Your task to perform on an android device: open app "DoorDash - Dasher" (install if not already installed) Image 0: 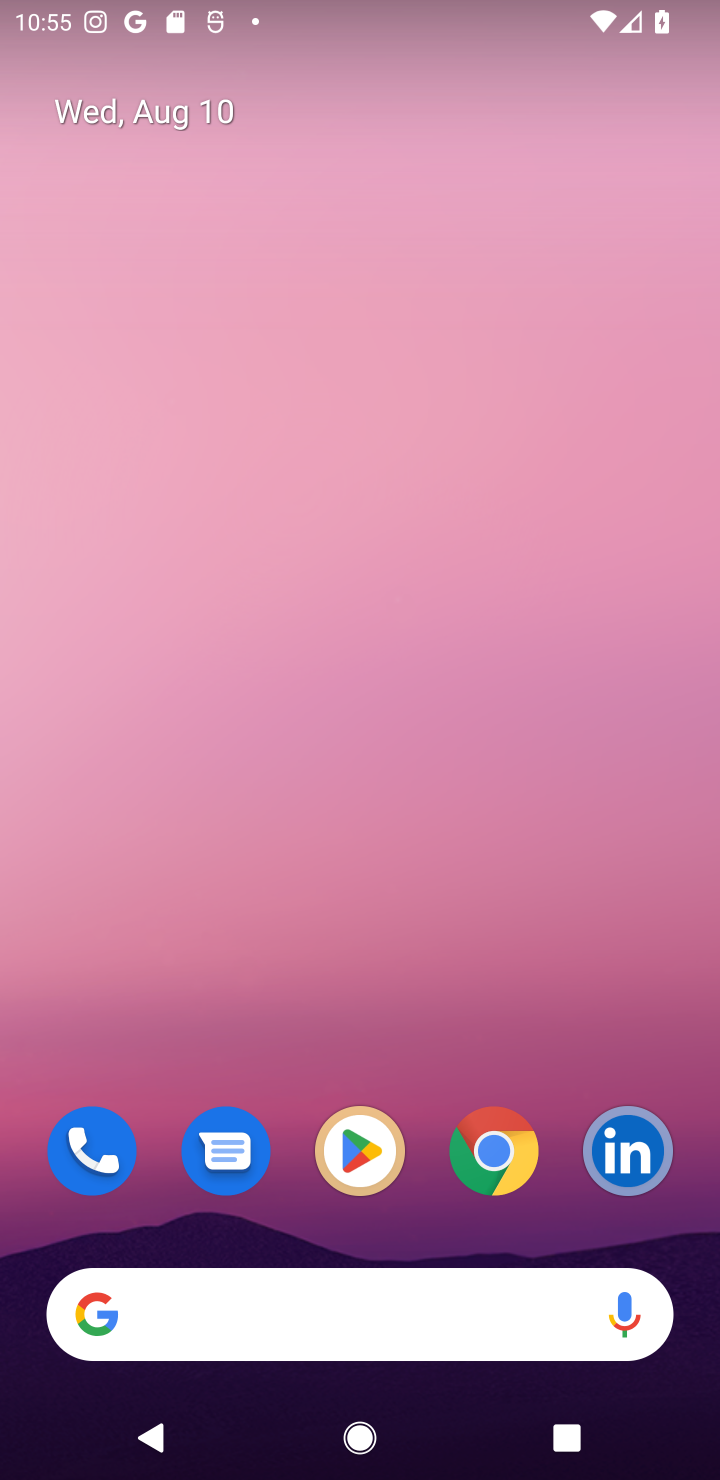
Step 0: click (357, 1131)
Your task to perform on an android device: open app "DoorDash - Dasher" (install if not already installed) Image 1: 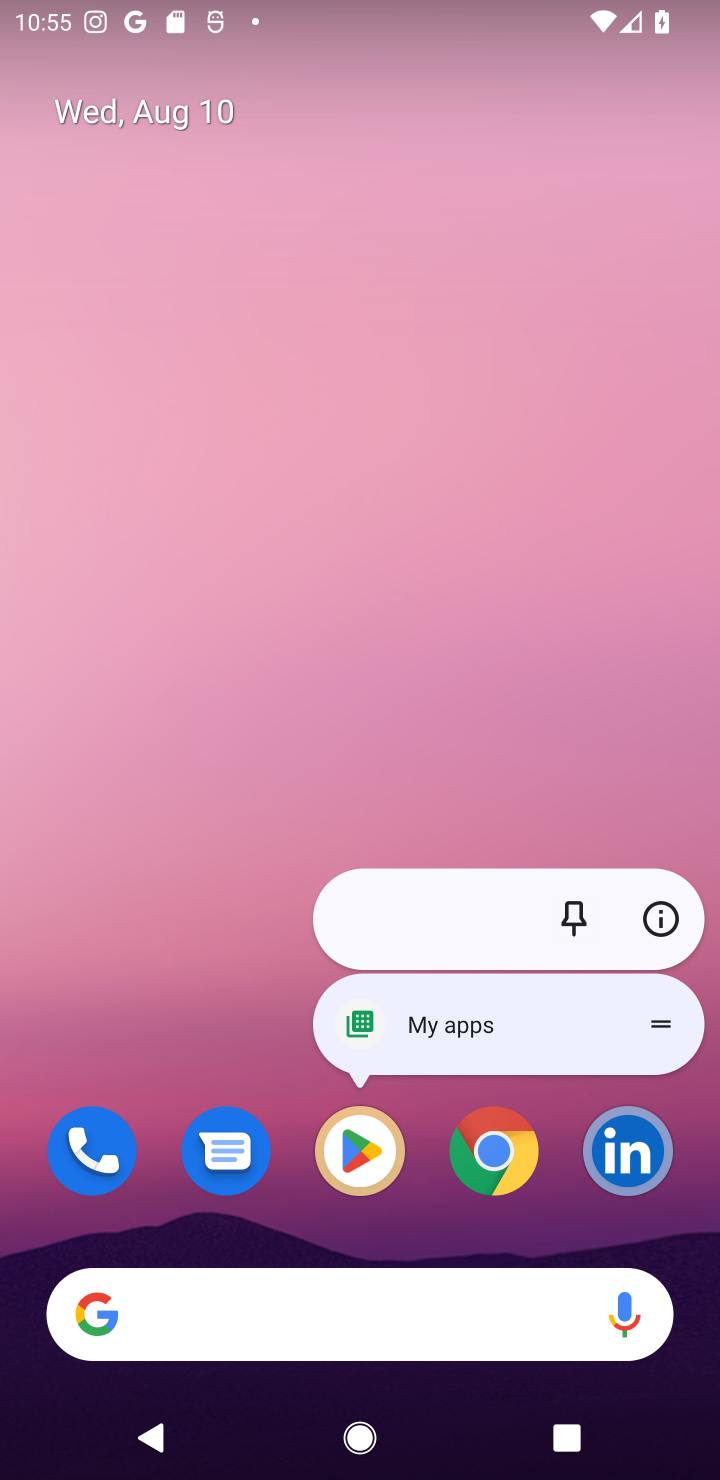
Step 1: click (354, 1163)
Your task to perform on an android device: open app "DoorDash - Dasher" (install if not already installed) Image 2: 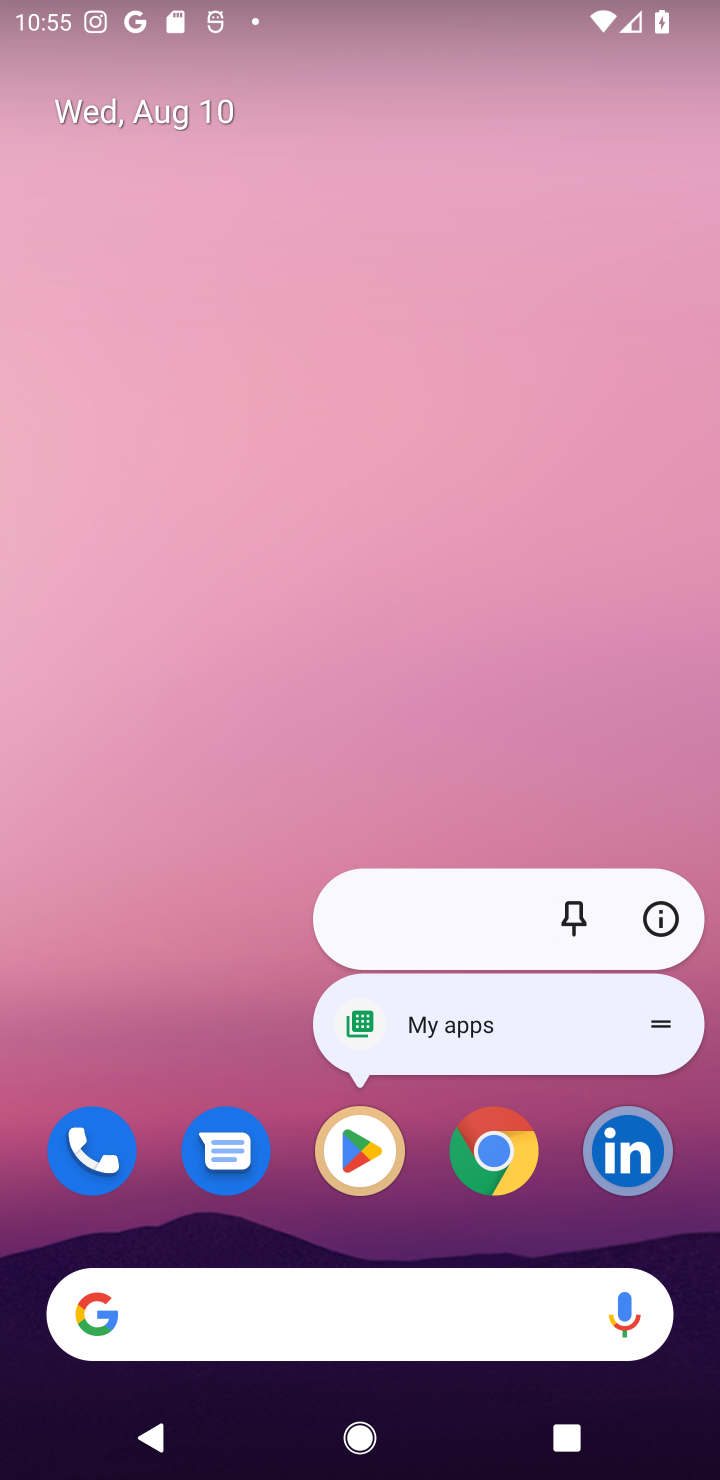
Step 2: click (351, 1150)
Your task to perform on an android device: open app "DoorDash - Dasher" (install if not already installed) Image 3: 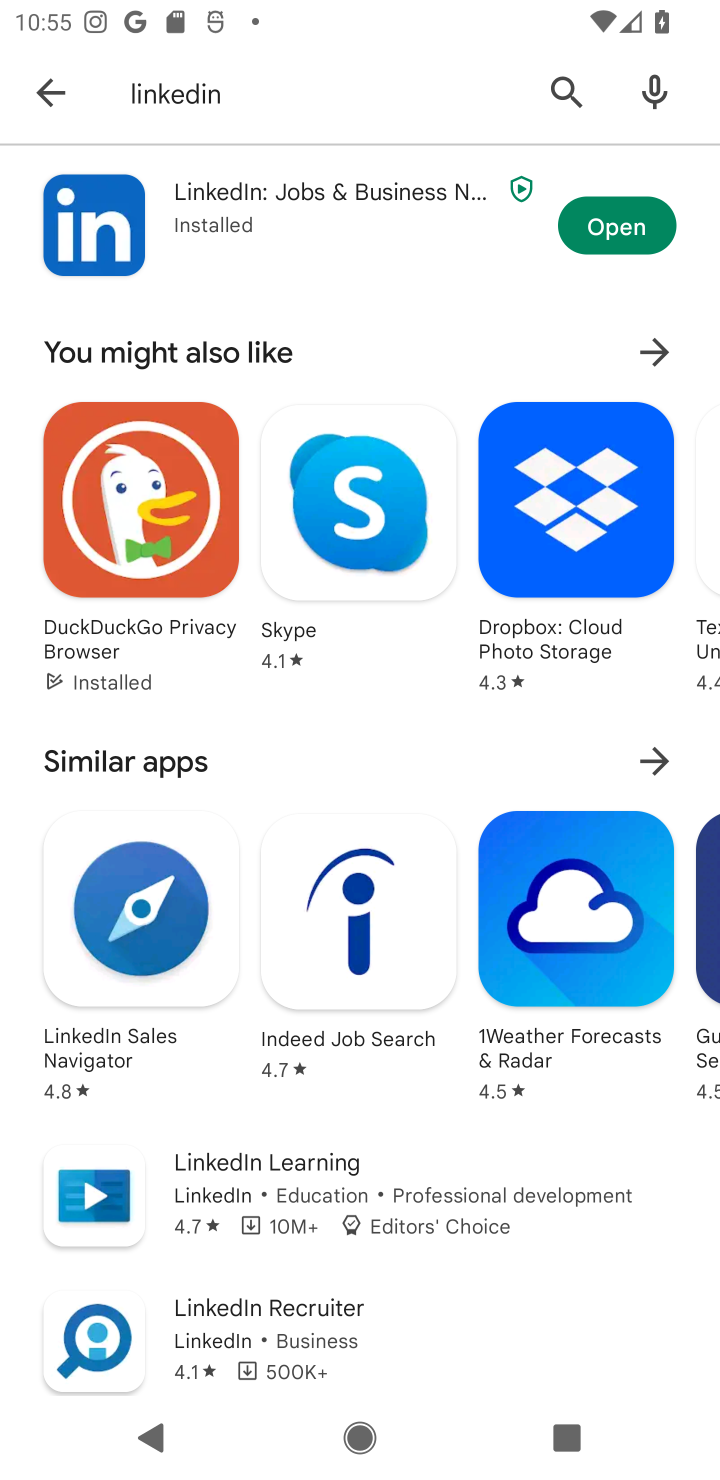
Step 3: click (571, 92)
Your task to perform on an android device: open app "DoorDash - Dasher" (install if not already installed) Image 4: 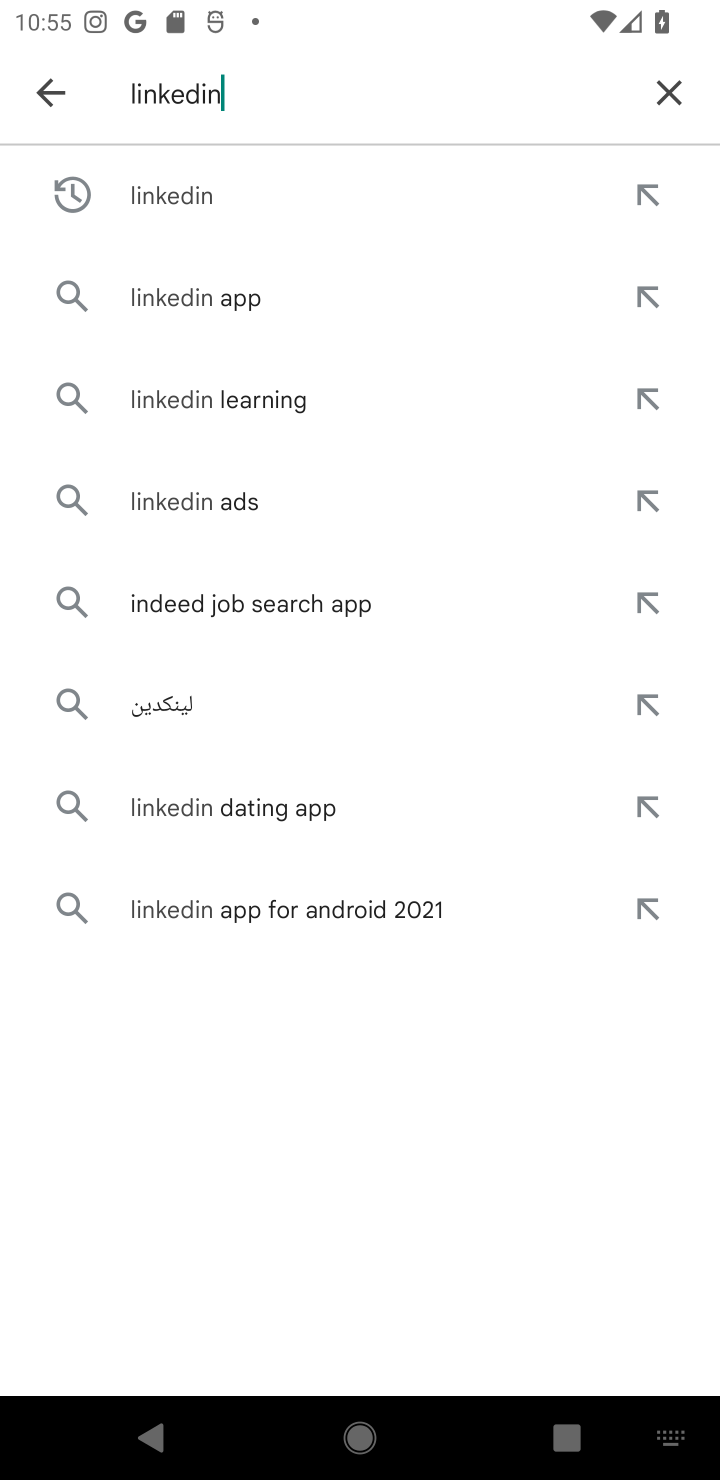
Step 4: click (677, 91)
Your task to perform on an android device: open app "DoorDash - Dasher" (install if not already installed) Image 5: 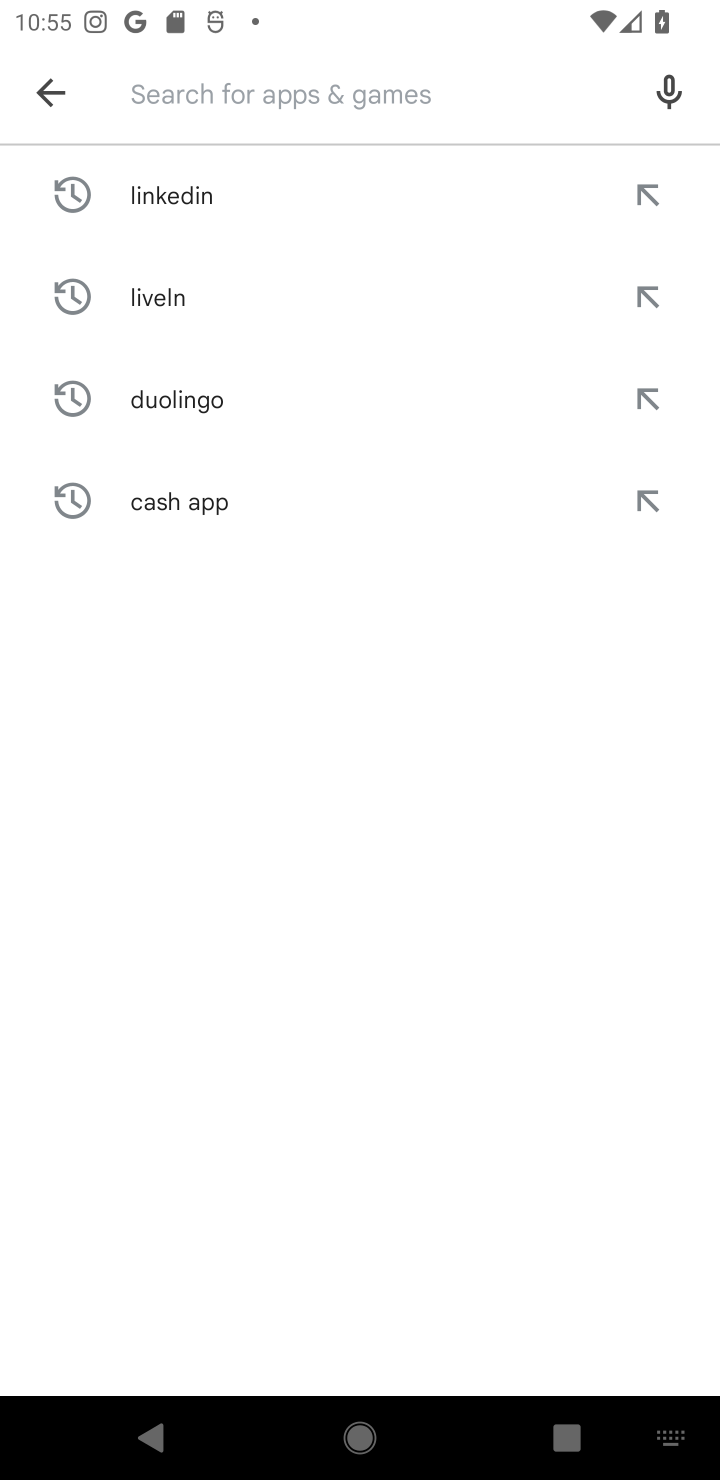
Step 5: click (294, 79)
Your task to perform on an android device: open app "DoorDash - Dasher" (install if not already installed) Image 6: 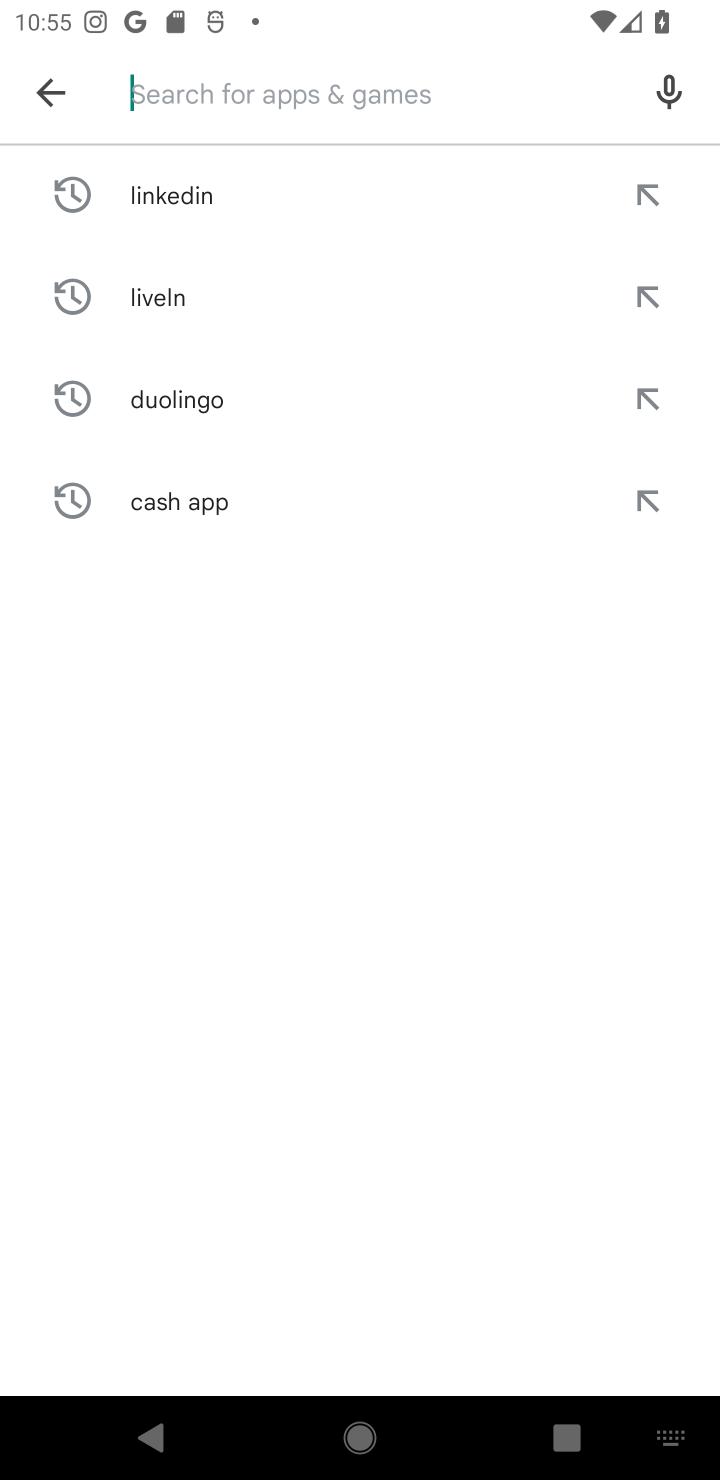
Step 6: type "doordash"
Your task to perform on an android device: open app "DoorDash - Dasher" (install if not already installed) Image 7: 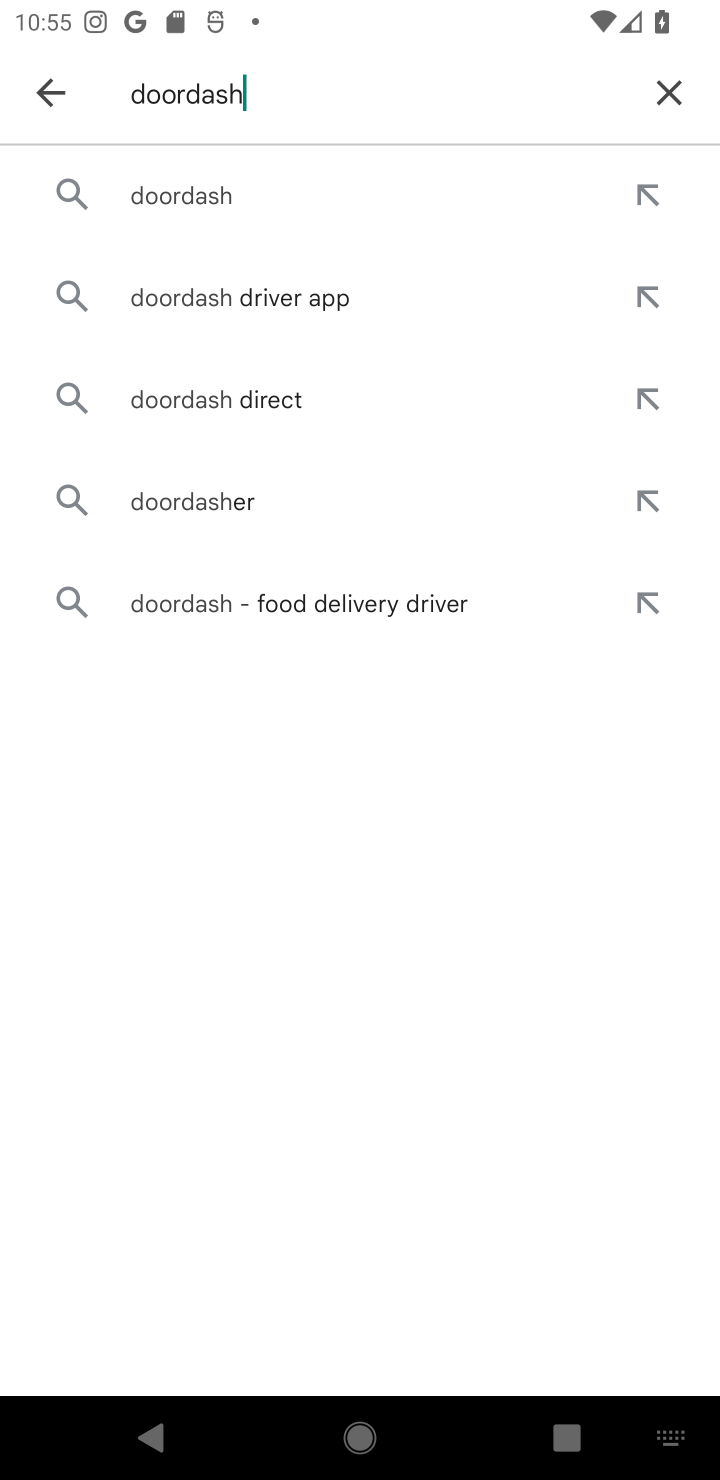
Step 7: click (216, 193)
Your task to perform on an android device: open app "DoorDash - Dasher" (install if not already installed) Image 8: 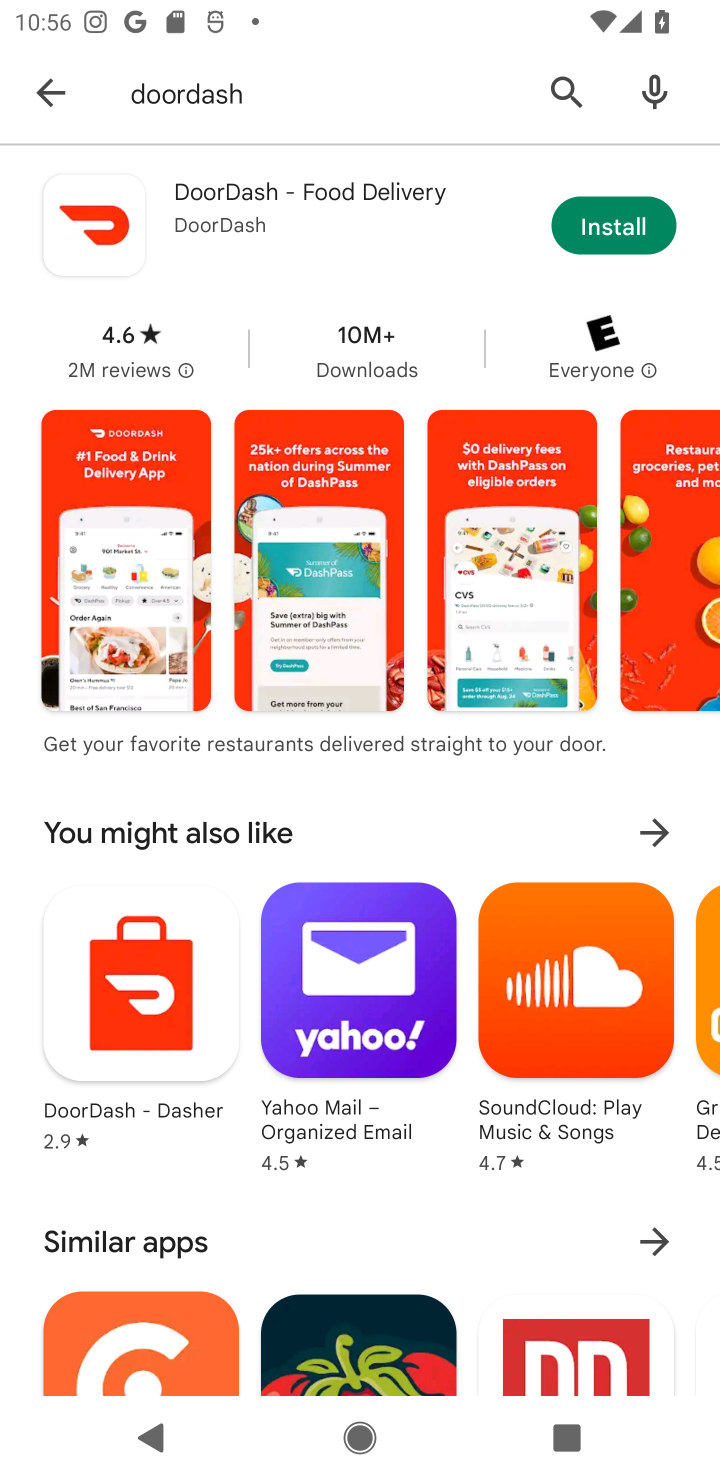
Step 8: click (108, 1014)
Your task to perform on an android device: open app "DoorDash - Dasher" (install if not already installed) Image 9: 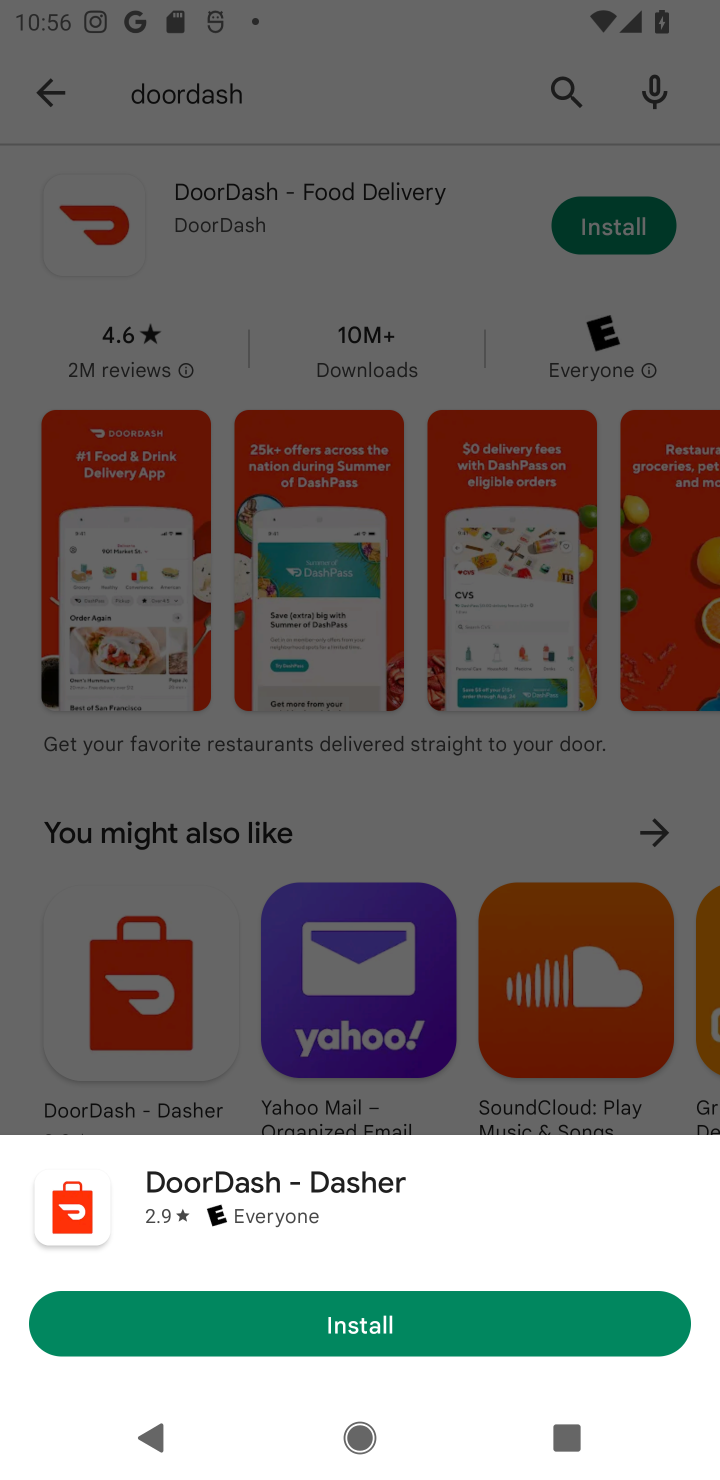
Step 9: click (309, 1327)
Your task to perform on an android device: open app "DoorDash - Dasher" (install if not already installed) Image 10: 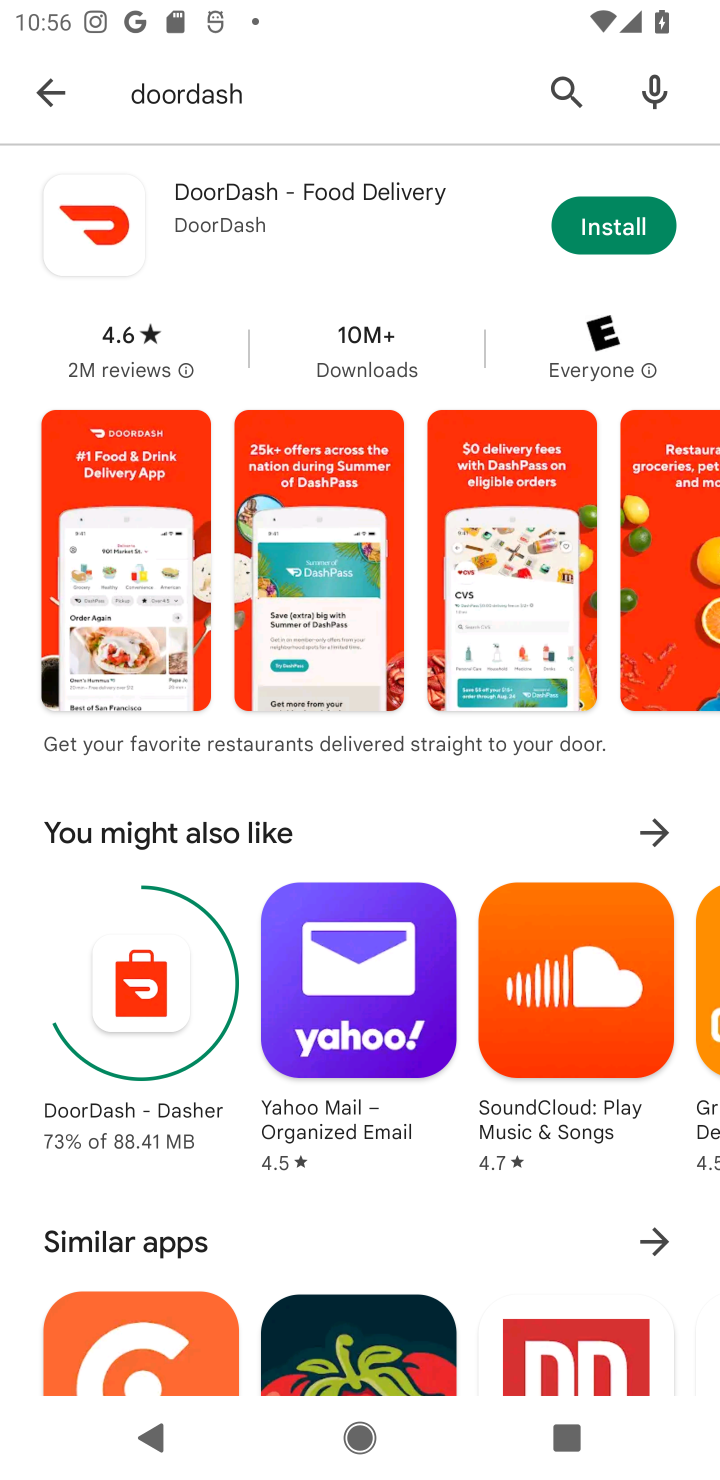
Step 10: click (629, 219)
Your task to perform on an android device: open app "DoorDash - Dasher" (install if not already installed) Image 11: 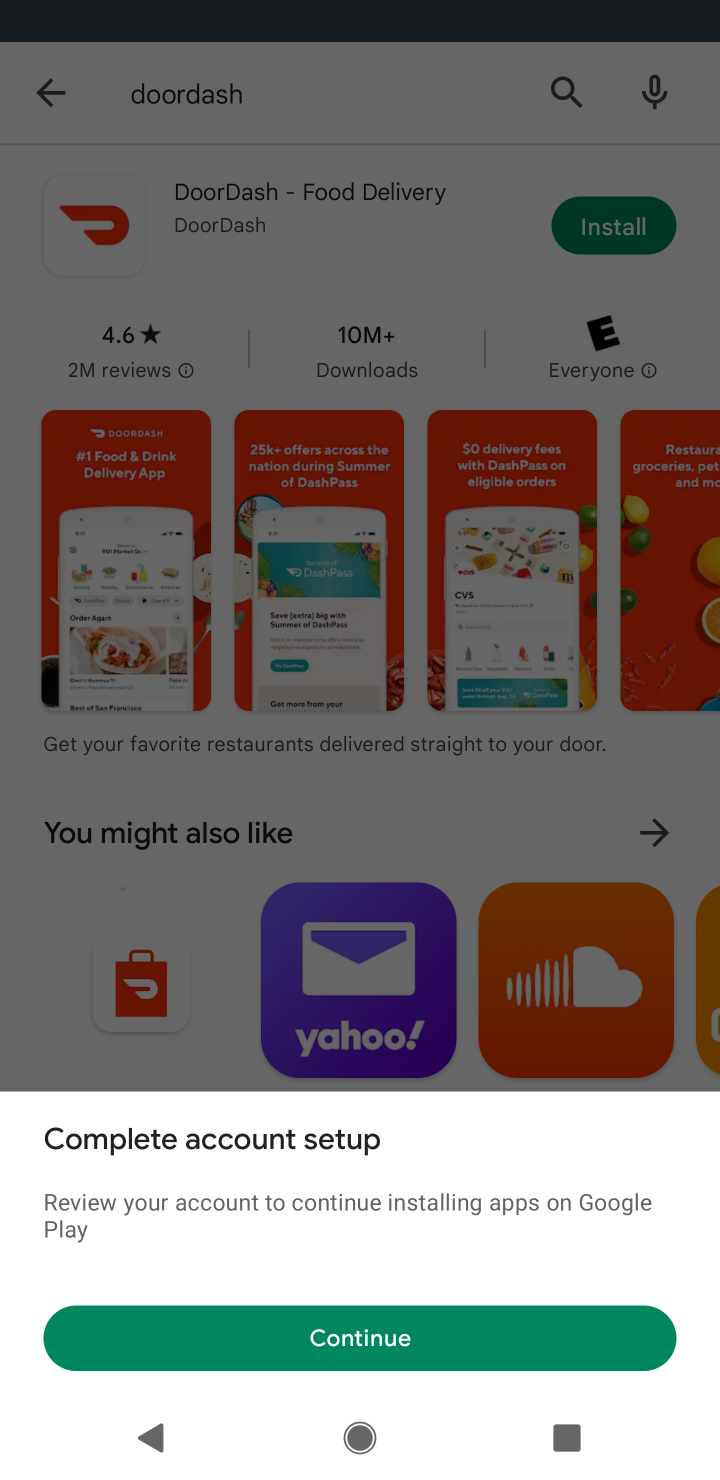
Step 11: click (371, 1354)
Your task to perform on an android device: open app "DoorDash - Dasher" (install if not already installed) Image 12: 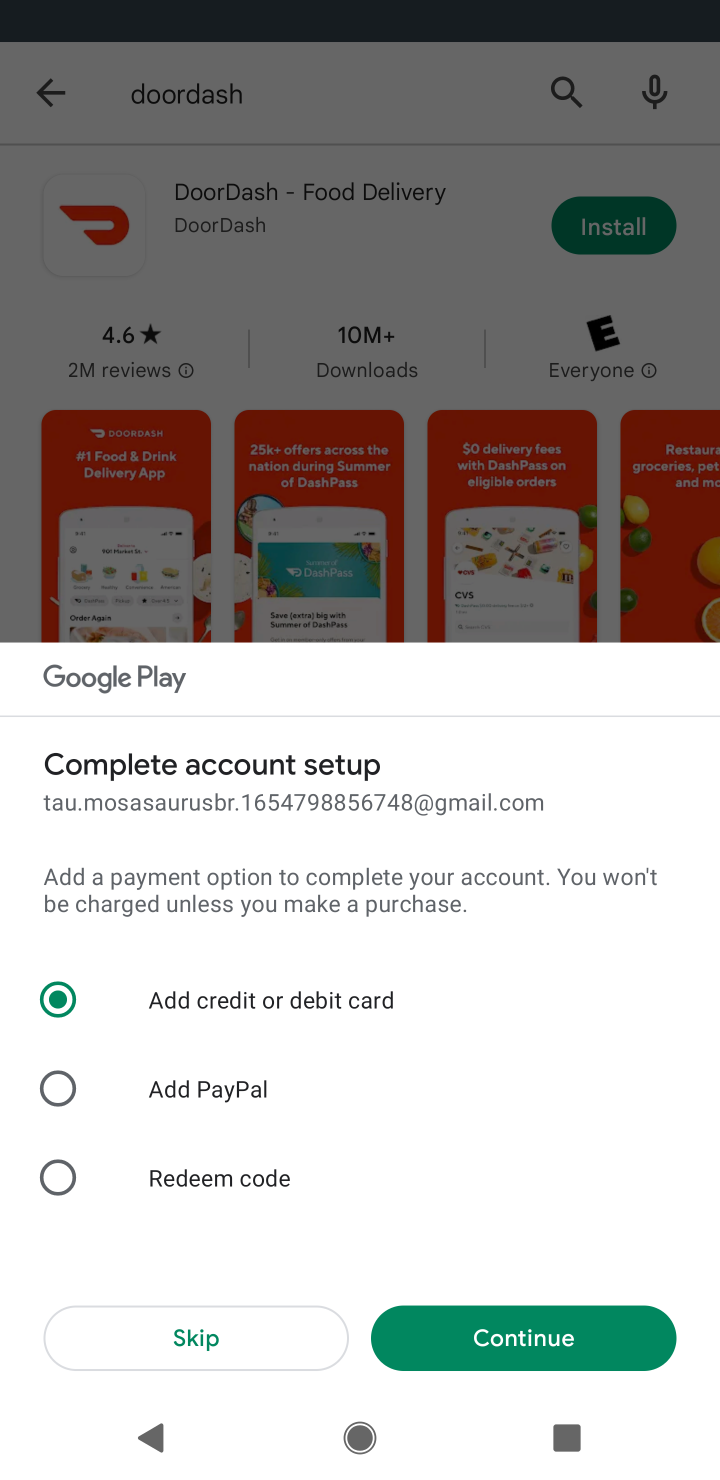
Step 12: click (179, 1345)
Your task to perform on an android device: open app "DoorDash - Dasher" (install if not already installed) Image 13: 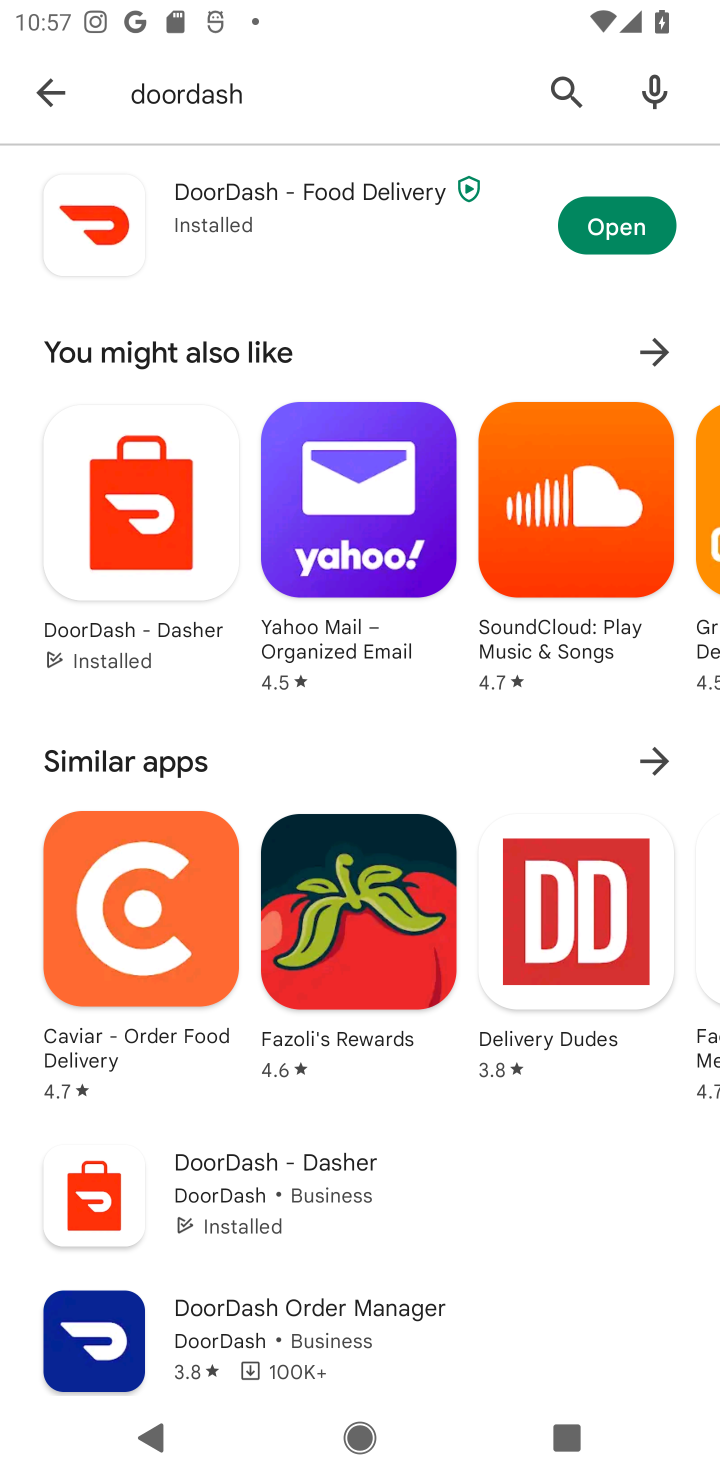
Step 13: click (622, 209)
Your task to perform on an android device: open app "DoorDash - Dasher" (install if not already installed) Image 14: 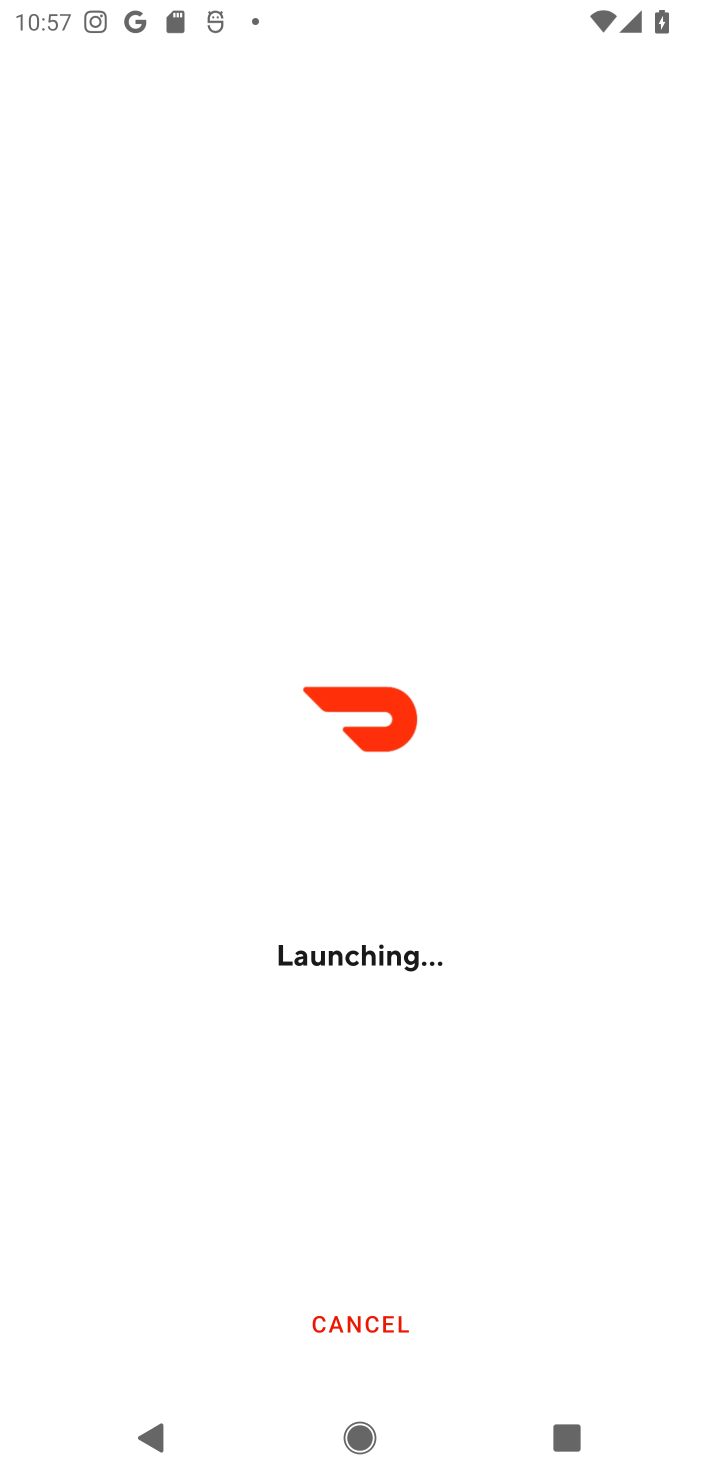
Step 14: task complete